Your task to perform on an android device: Open Google Maps Image 0: 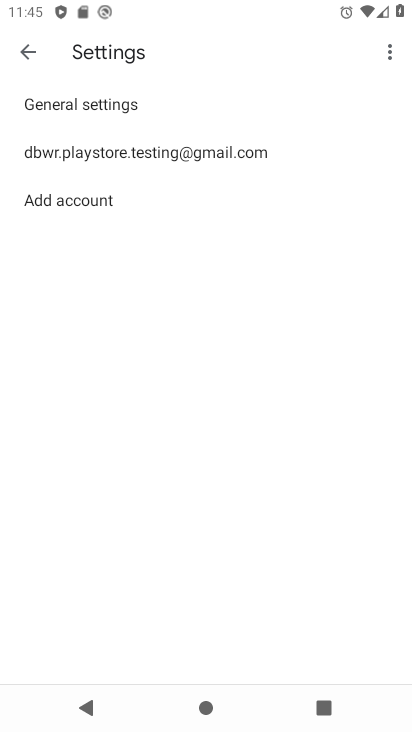
Step 0: press home button
Your task to perform on an android device: Open Google Maps Image 1: 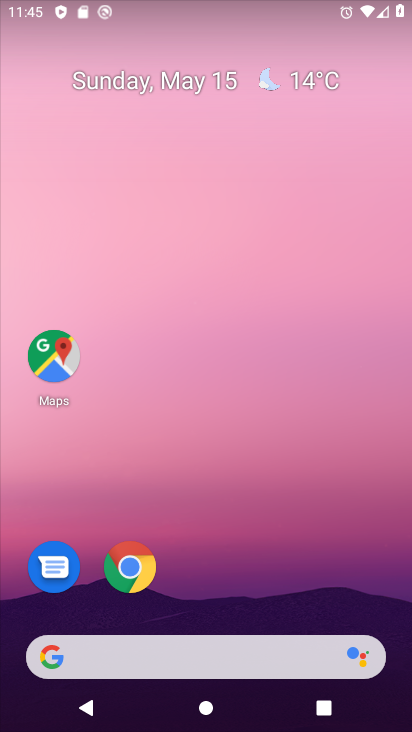
Step 1: drag from (217, 619) to (282, 39)
Your task to perform on an android device: Open Google Maps Image 2: 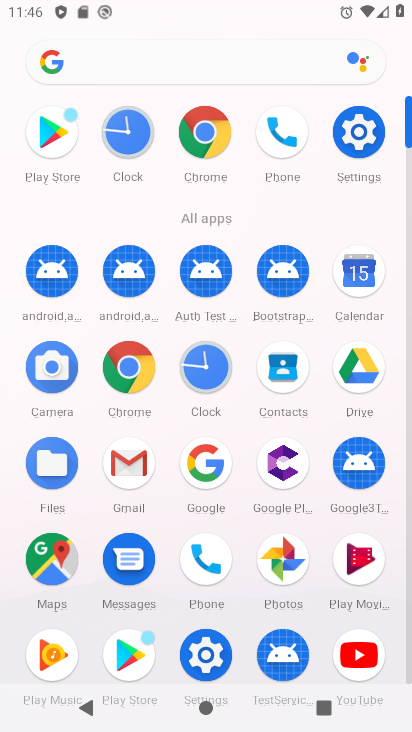
Step 2: click (45, 564)
Your task to perform on an android device: Open Google Maps Image 3: 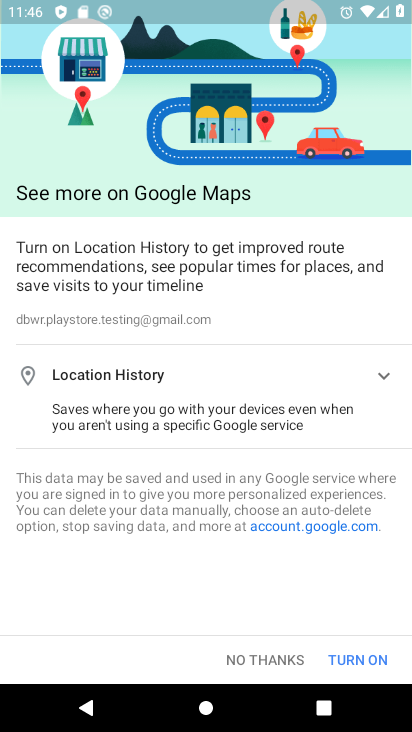
Step 3: click (249, 658)
Your task to perform on an android device: Open Google Maps Image 4: 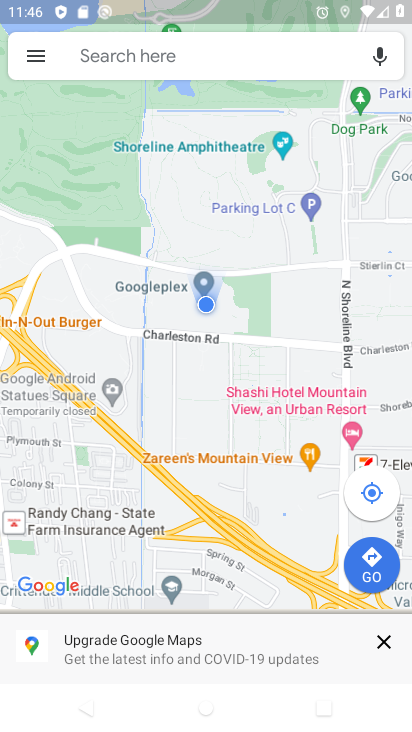
Step 4: task complete